Your task to perform on an android device: Open the stopwatch Image 0: 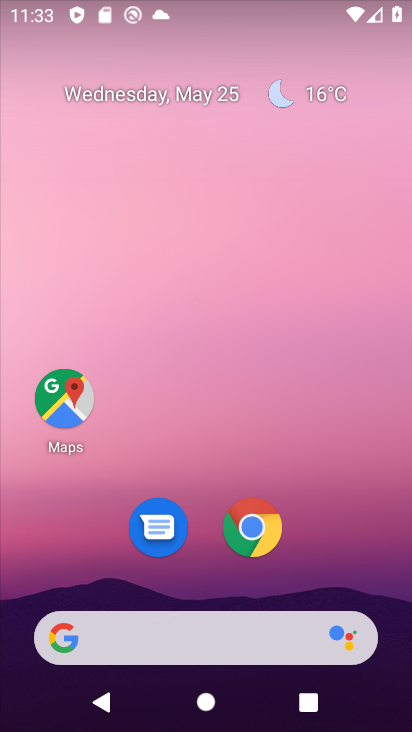
Step 0: drag from (344, 536) to (389, 33)
Your task to perform on an android device: Open the stopwatch Image 1: 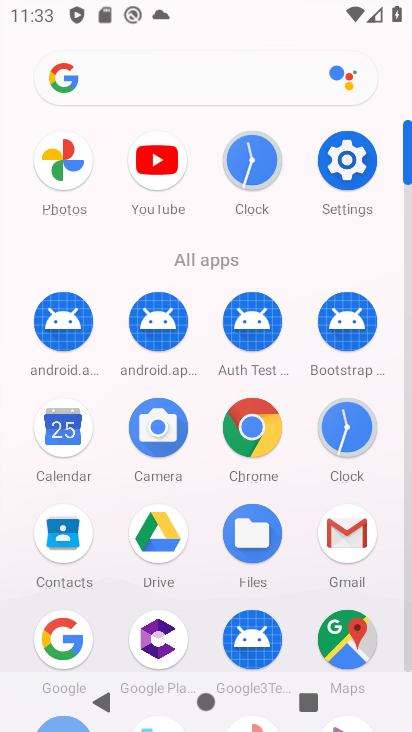
Step 1: click (280, 169)
Your task to perform on an android device: Open the stopwatch Image 2: 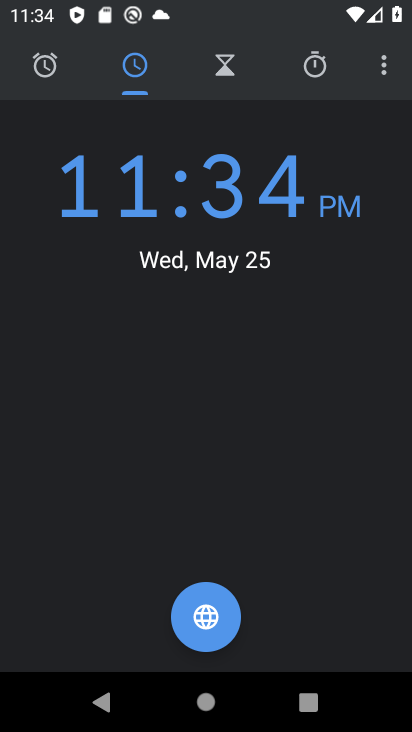
Step 2: click (323, 78)
Your task to perform on an android device: Open the stopwatch Image 3: 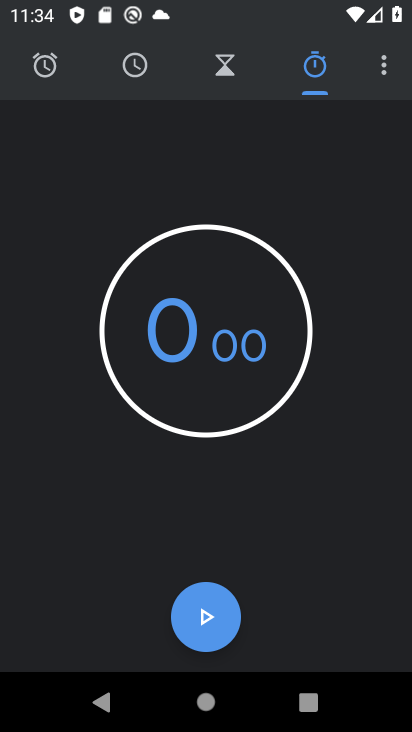
Step 3: task complete